Your task to perform on an android device: choose inbox layout in the gmail app Image 0: 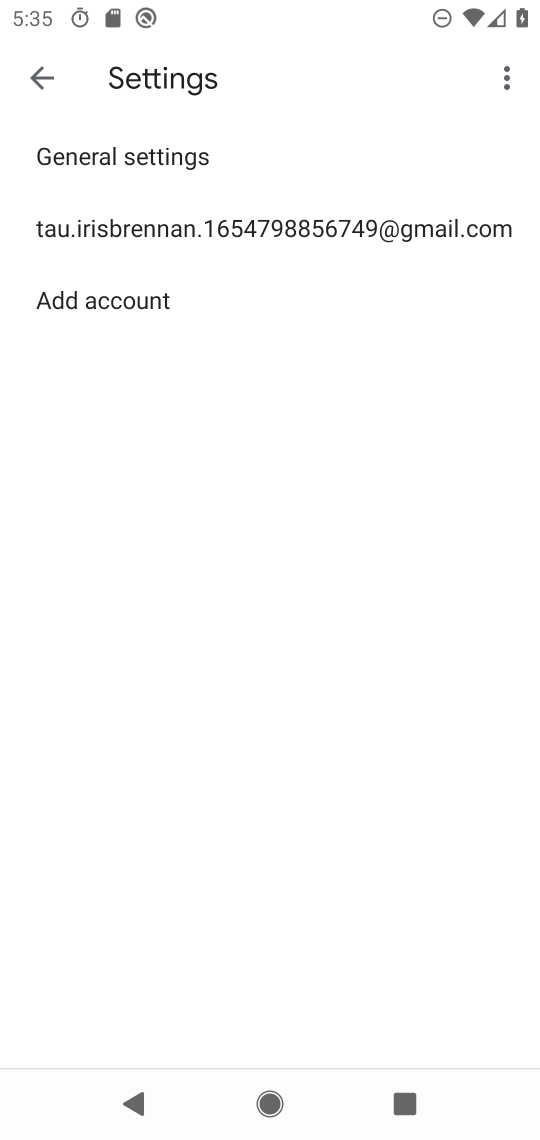
Step 0: click (191, 228)
Your task to perform on an android device: choose inbox layout in the gmail app Image 1: 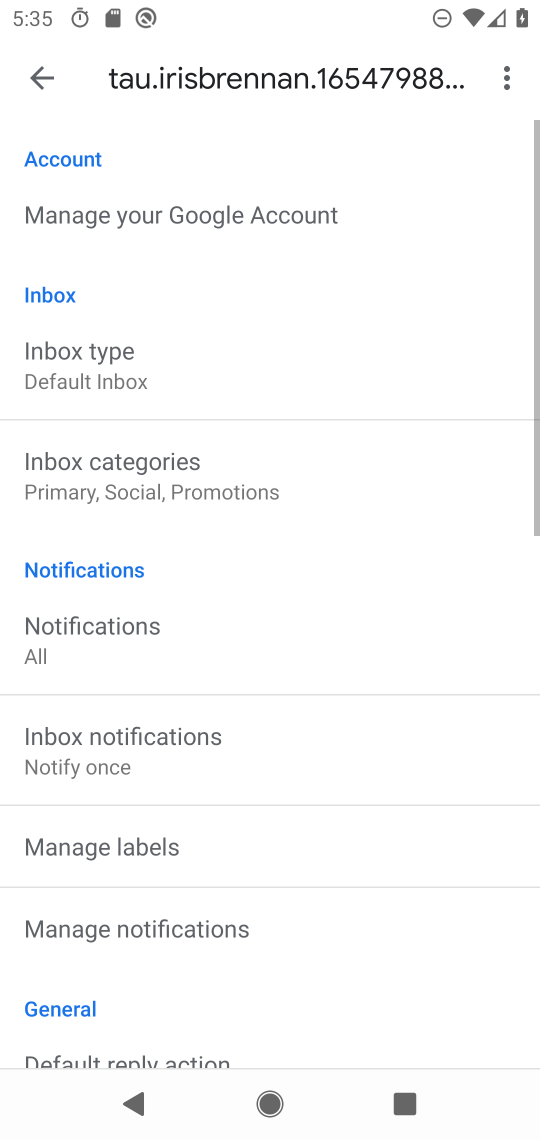
Step 1: press home button
Your task to perform on an android device: choose inbox layout in the gmail app Image 2: 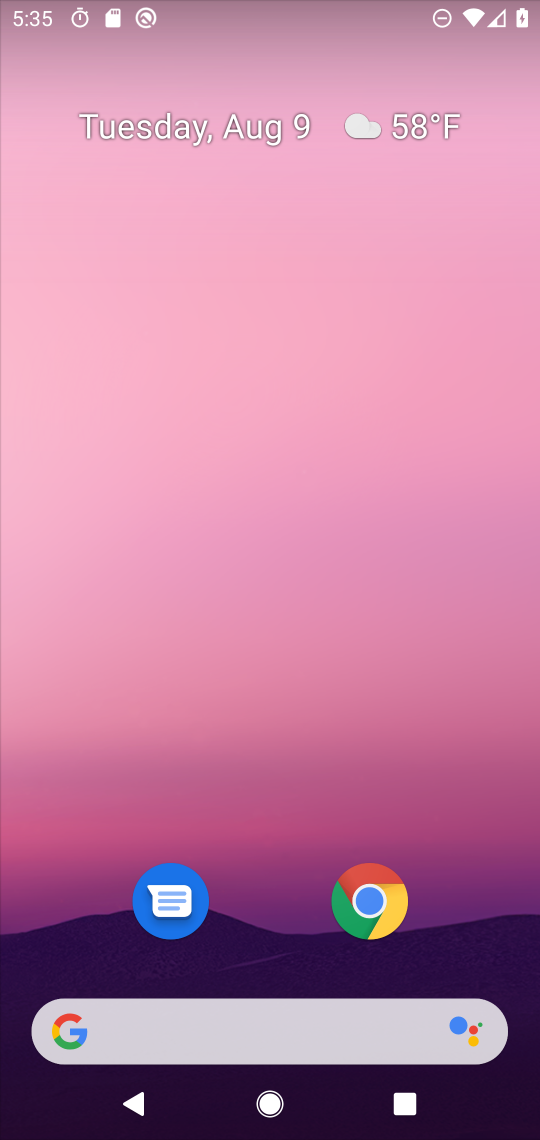
Step 2: drag from (283, 890) to (324, 82)
Your task to perform on an android device: choose inbox layout in the gmail app Image 3: 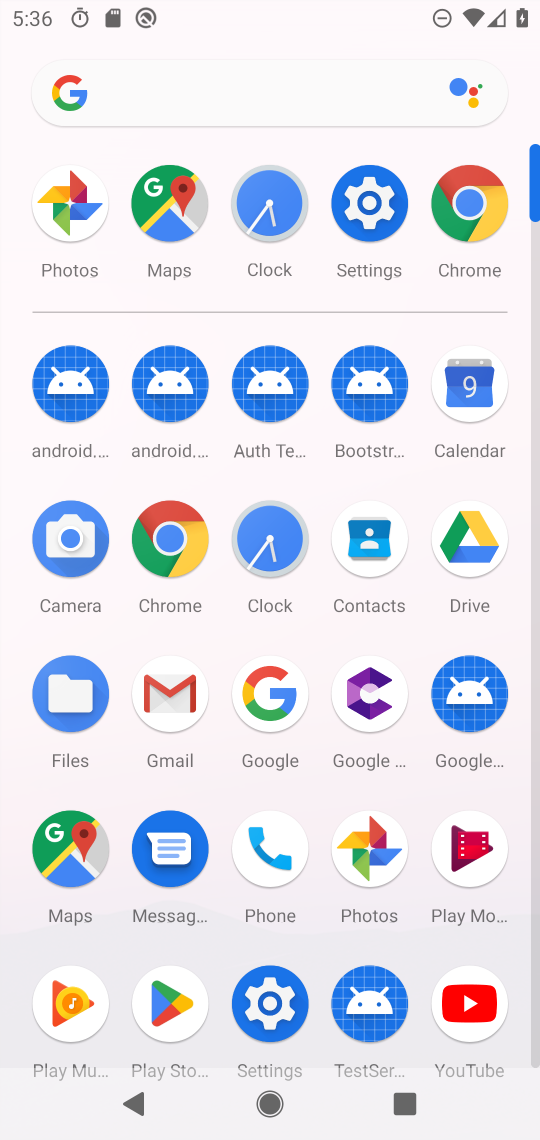
Step 3: click (157, 684)
Your task to perform on an android device: choose inbox layout in the gmail app Image 4: 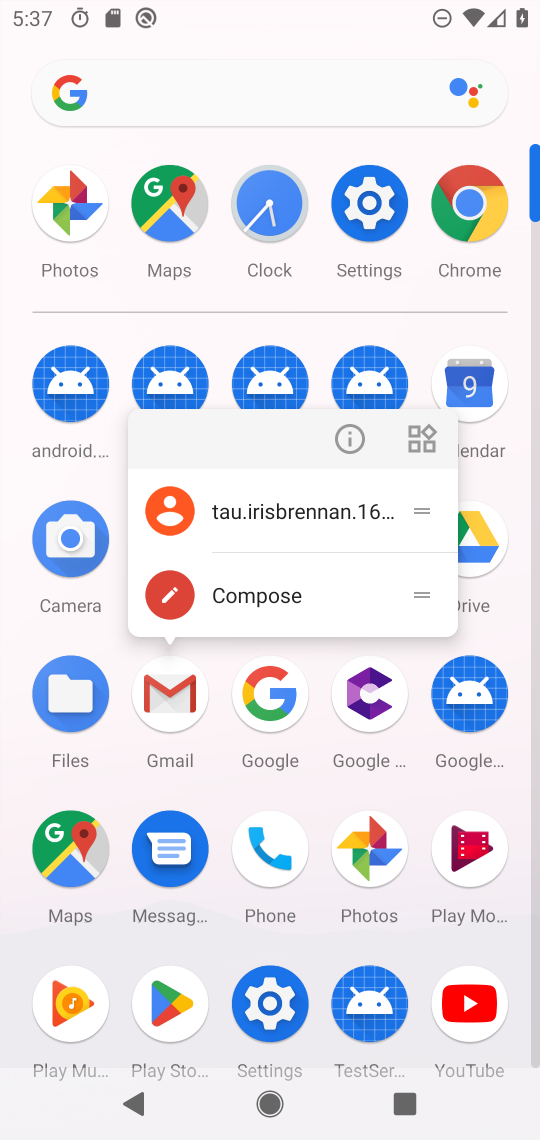
Step 4: click (160, 701)
Your task to perform on an android device: choose inbox layout in the gmail app Image 5: 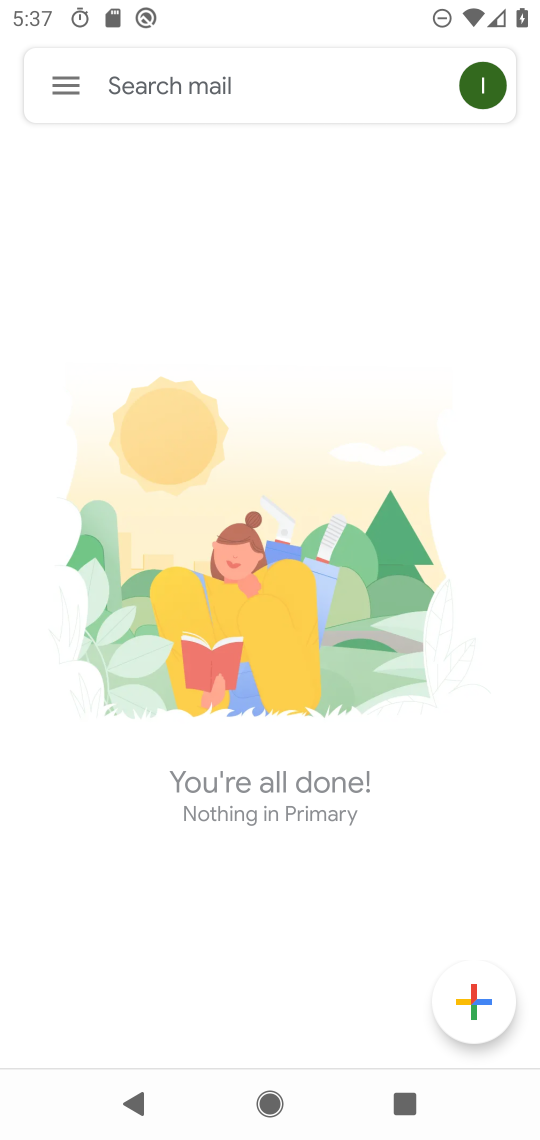
Step 5: click (167, 699)
Your task to perform on an android device: choose inbox layout in the gmail app Image 6: 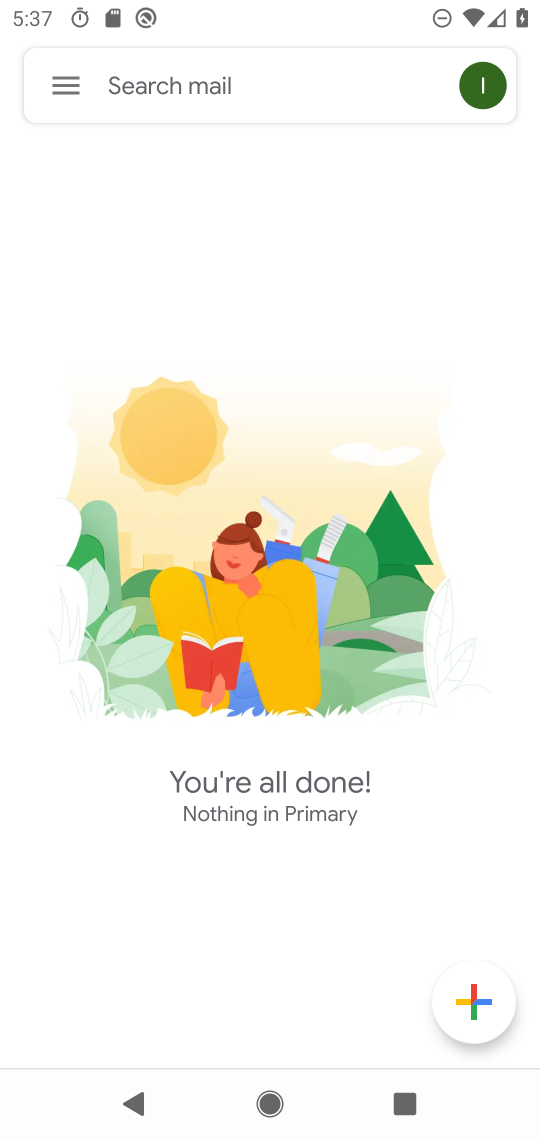
Step 6: click (45, 91)
Your task to perform on an android device: choose inbox layout in the gmail app Image 7: 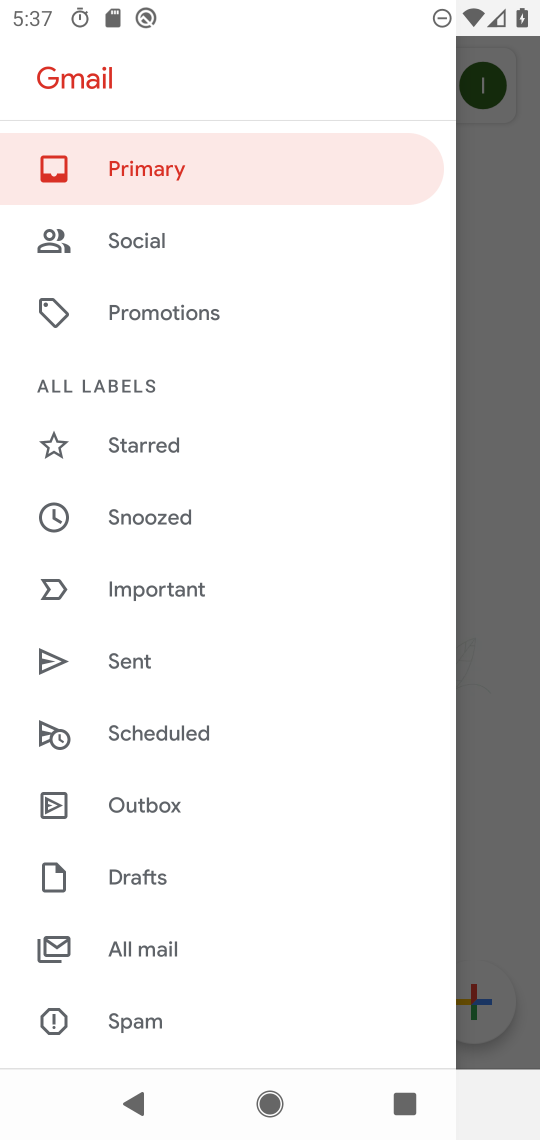
Step 7: drag from (194, 949) to (367, 175)
Your task to perform on an android device: choose inbox layout in the gmail app Image 8: 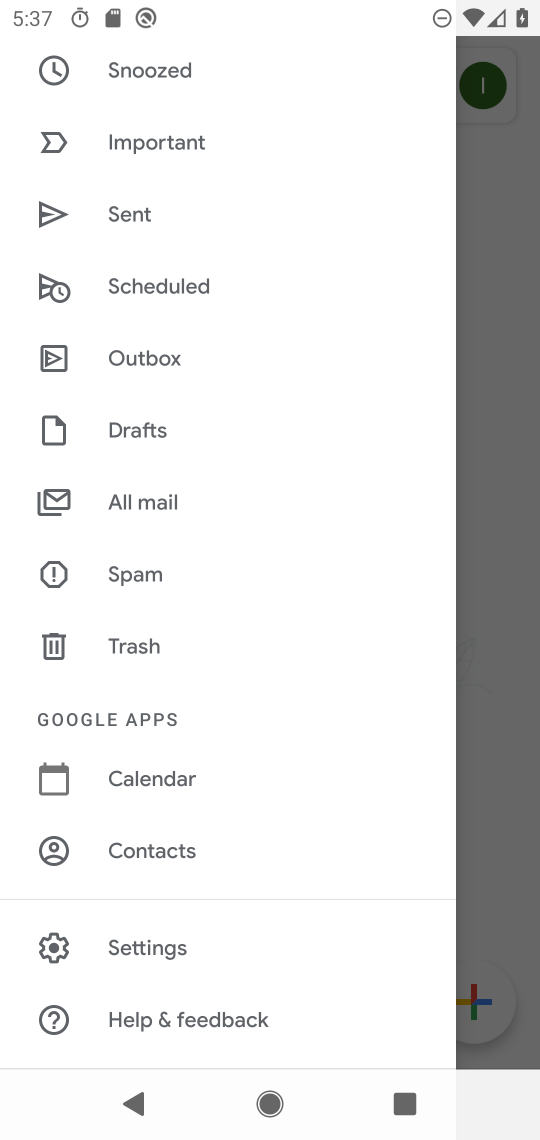
Step 8: click (128, 953)
Your task to perform on an android device: choose inbox layout in the gmail app Image 9: 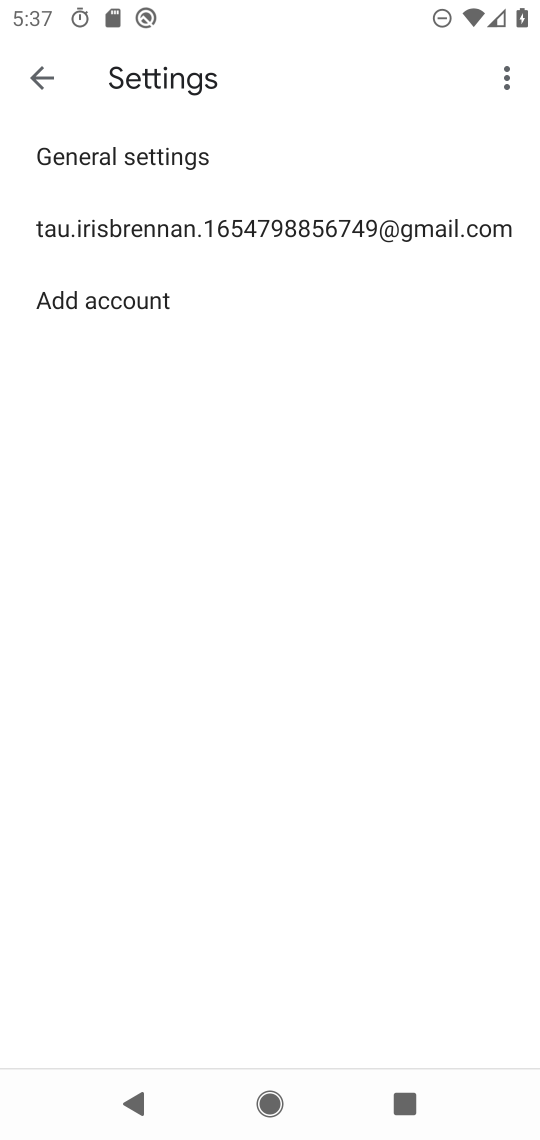
Step 9: click (115, 218)
Your task to perform on an android device: choose inbox layout in the gmail app Image 10: 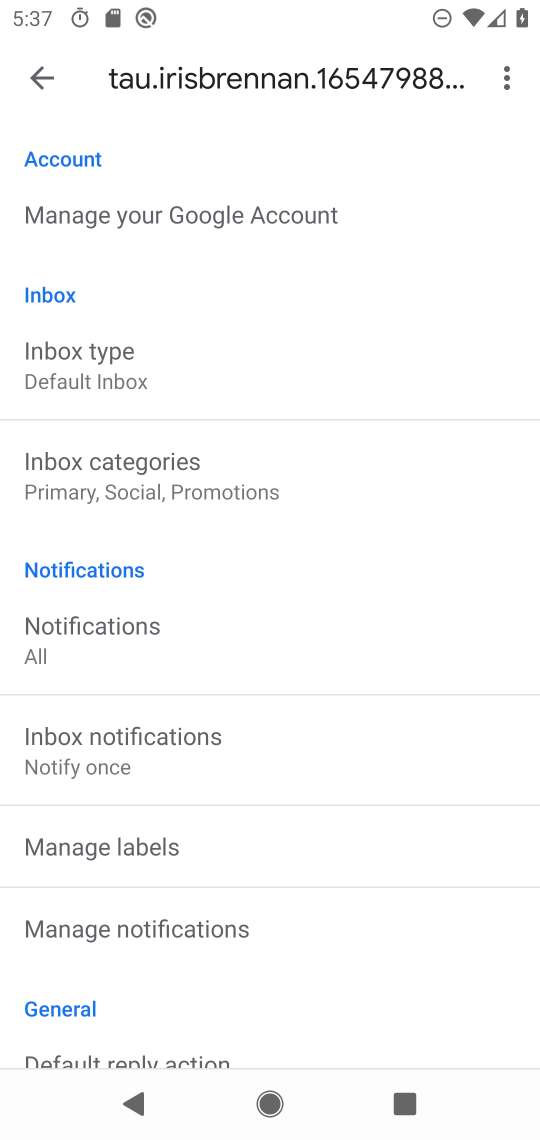
Step 10: click (79, 370)
Your task to perform on an android device: choose inbox layout in the gmail app Image 11: 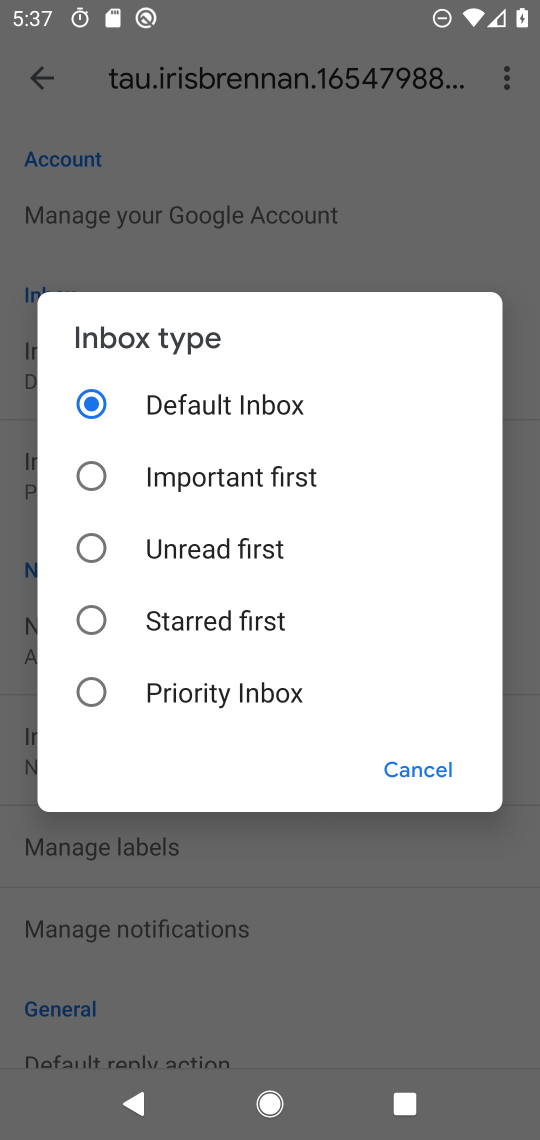
Step 11: click (158, 675)
Your task to perform on an android device: choose inbox layout in the gmail app Image 12: 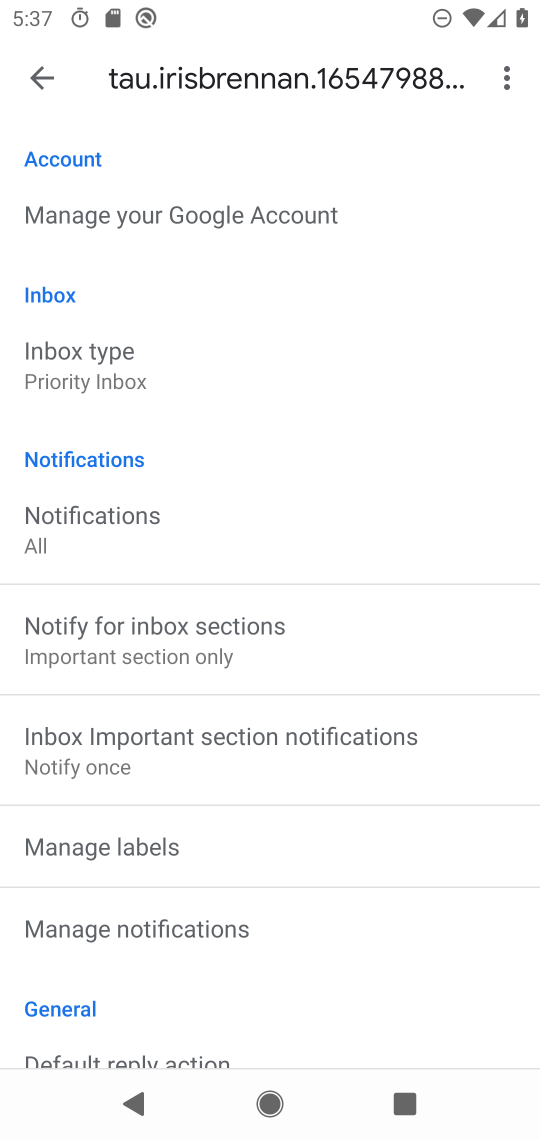
Step 12: task complete